Your task to perform on an android device: Show the shopping cart on amazon. Search for bose soundlink mini on amazon, select the first entry, add it to the cart, then select checkout. Image 0: 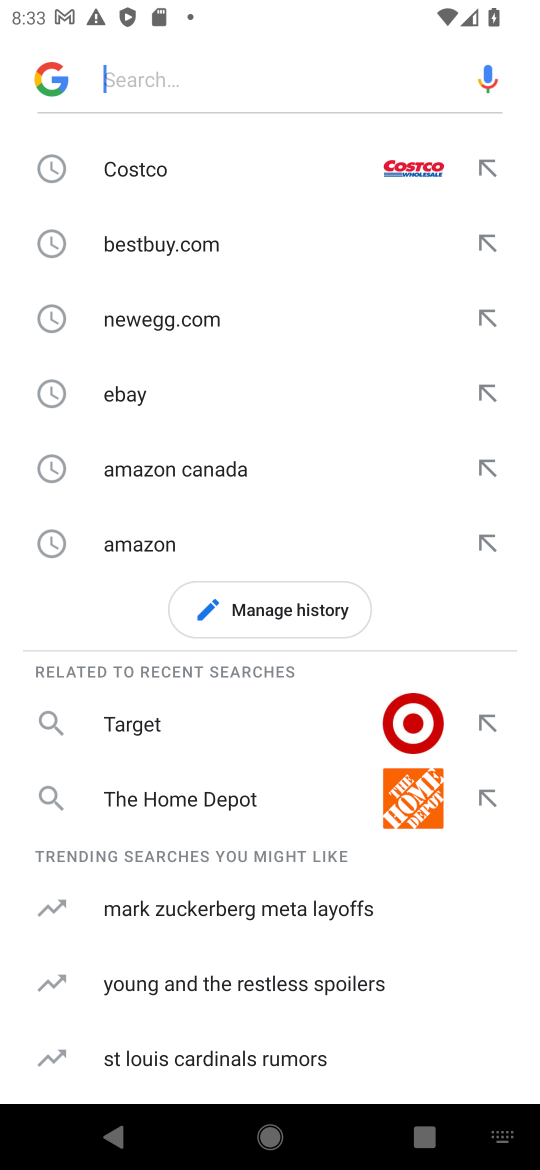
Step 0: type "amazon.com"
Your task to perform on an android device: Show the shopping cart on amazon. Search for bose soundlink mini on amazon, select the first entry, add it to the cart, then select checkout. Image 1: 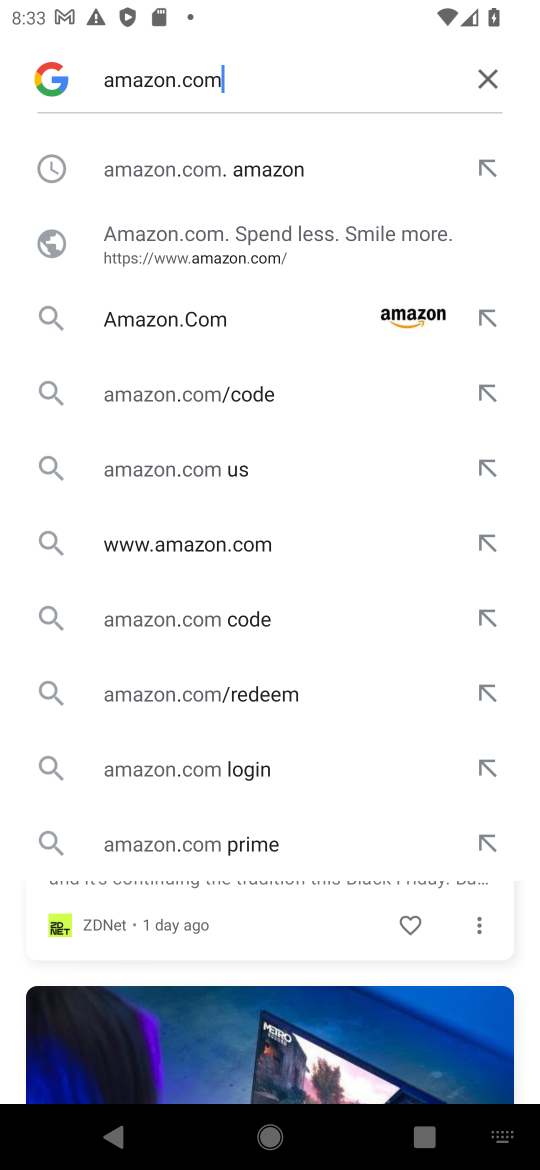
Step 1: click (170, 316)
Your task to perform on an android device: Show the shopping cart on amazon. Search for bose soundlink mini on amazon, select the first entry, add it to the cart, then select checkout. Image 2: 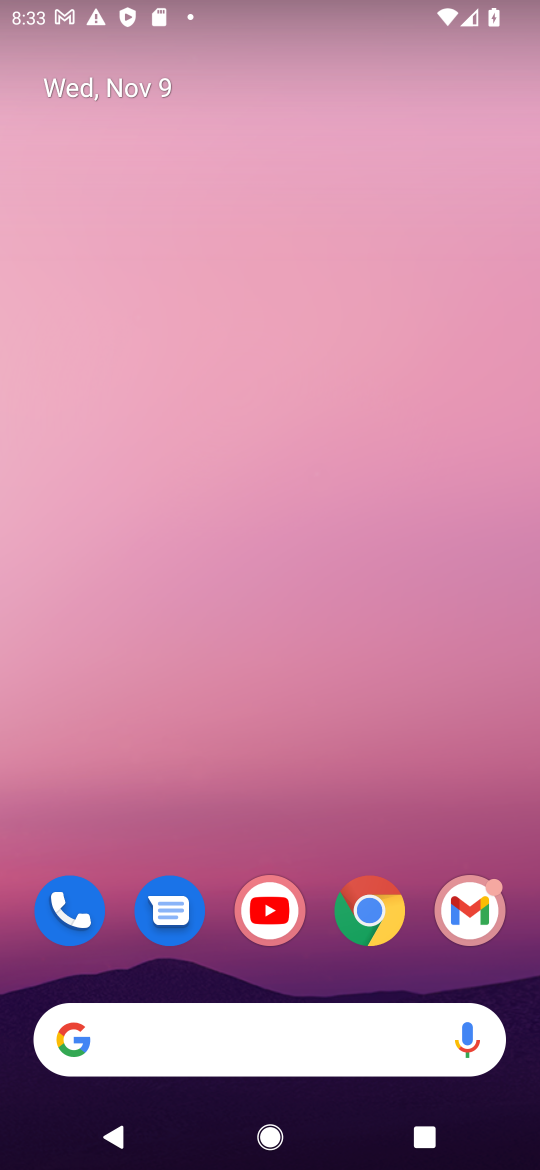
Step 2: click (367, 928)
Your task to perform on an android device: Show the shopping cart on amazon. Search for bose soundlink mini on amazon, select the first entry, add it to the cart, then select checkout. Image 3: 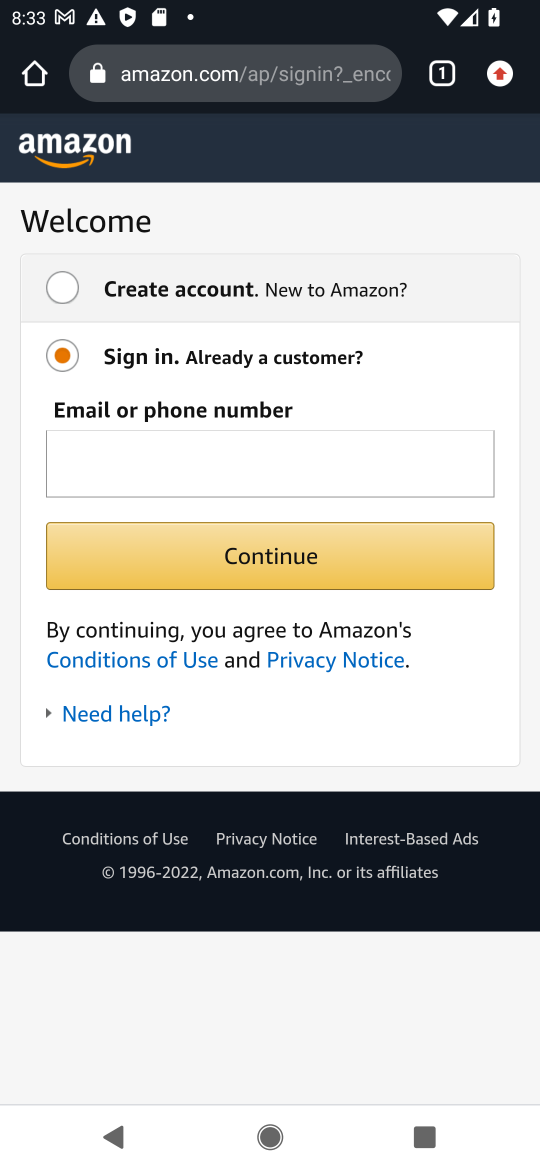
Step 3: press back button
Your task to perform on an android device: Show the shopping cart on amazon. Search for bose soundlink mini on amazon, select the first entry, add it to the cart, then select checkout. Image 4: 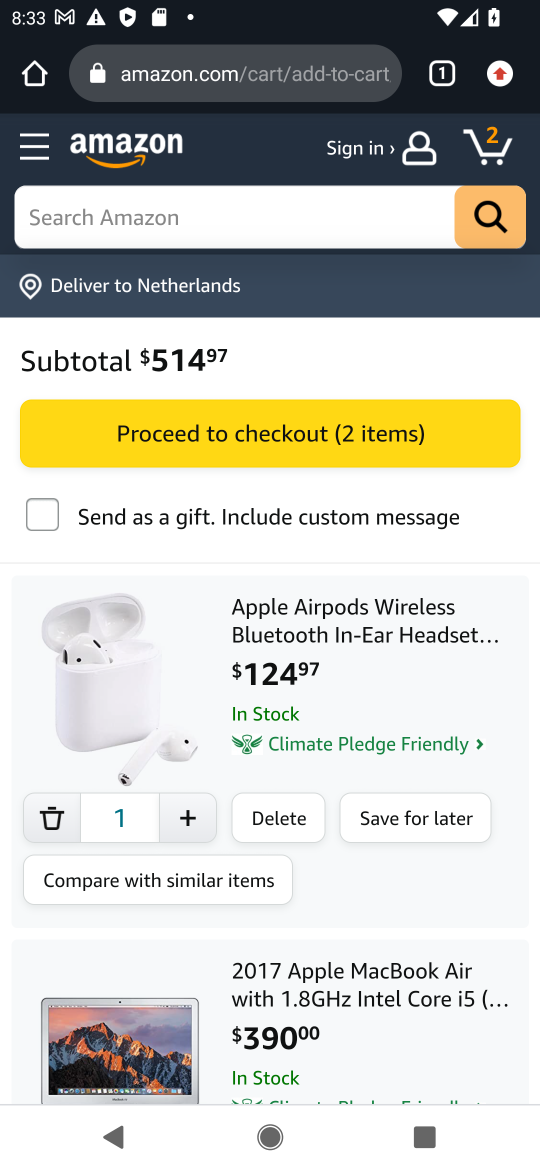
Step 4: click (491, 152)
Your task to perform on an android device: Show the shopping cart on amazon. Search for bose soundlink mini on amazon, select the first entry, add it to the cart, then select checkout. Image 5: 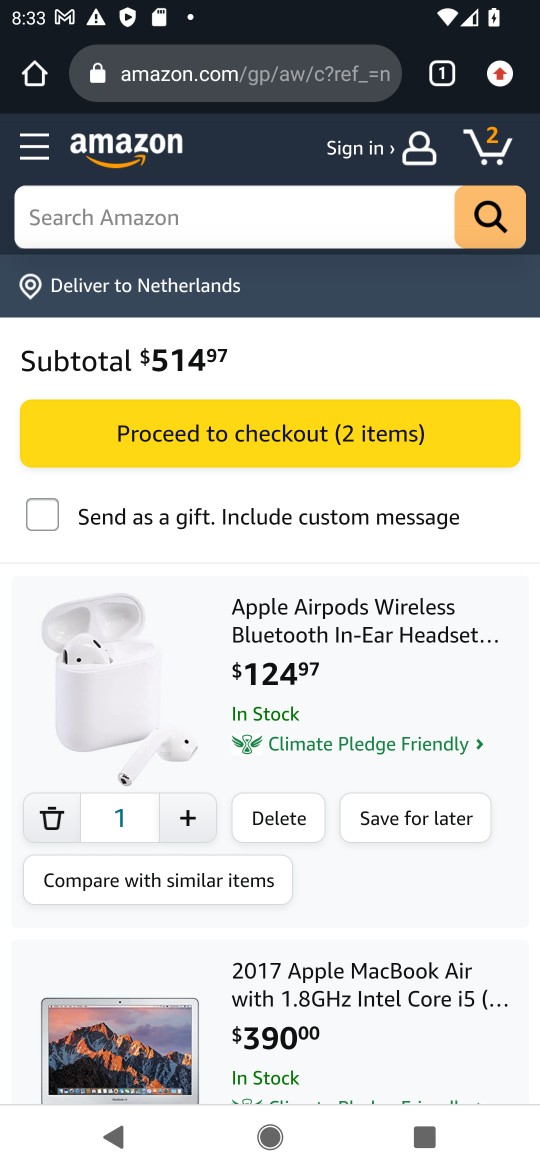
Step 5: drag from (428, 749) to (440, 530)
Your task to perform on an android device: Show the shopping cart on amazon. Search for bose soundlink mini on amazon, select the first entry, add it to the cart, then select checkout. Image 6: 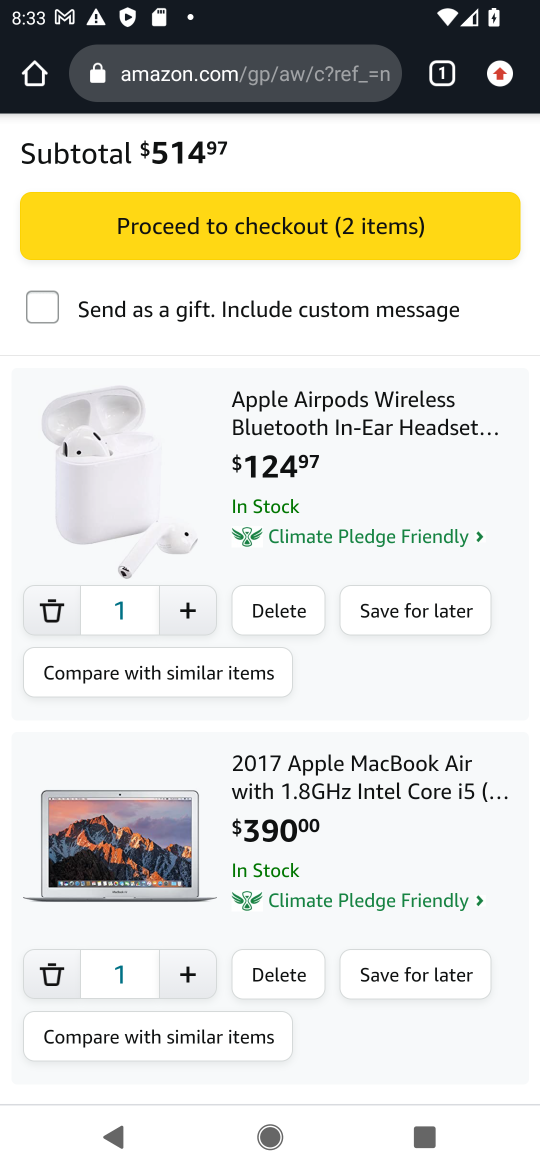
Step 6: drag from (458, 413) to (489, 867)
Your task to perform on an android device: Show the shopping cart on amazon. Search for bose soundlink mini on amazon, select the first entry, add it to the cart, then select checkout. Image 7: 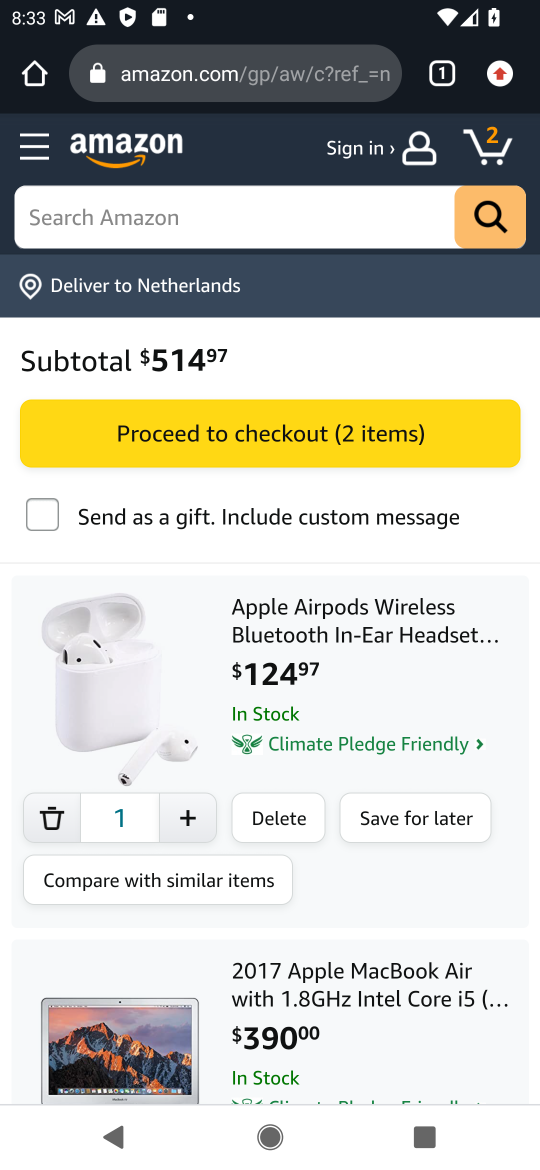
Step 7: click (164, 234)
Your task to perform on an android device: Show the shopping cart on amazon. Search for bose soundlink mini on amazon, select the first entry, add it to the cart, then select checkout. Image 8: 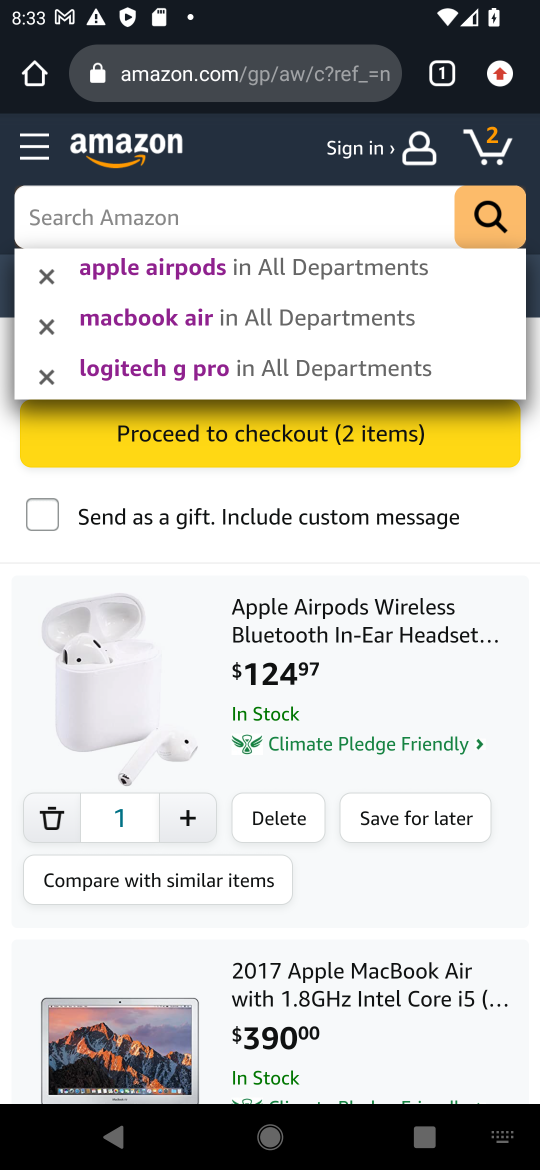
Step 8: type "bose soundlink mini "
Your task to perform on an android device: Show the shopping cart on amazon. Search for bose soundlink mini on amazon, select the first entry, add it to the cart, then select checkout. Image 9: 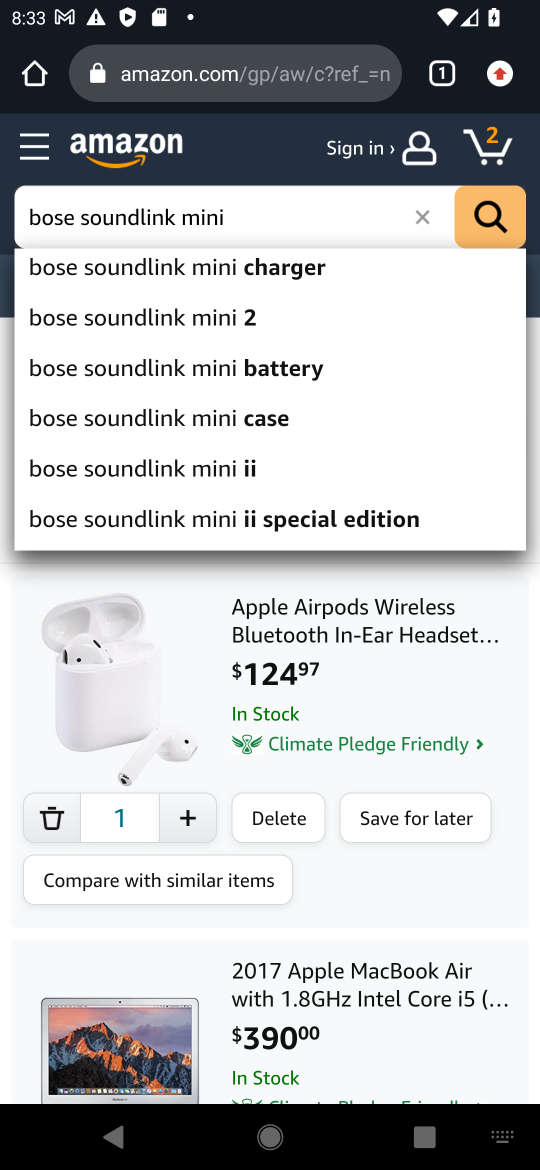
Step 9: click (472, 219)
Your task to perform on an android device: Show the shopping cart on amazon. Search for bose soundlink mini on amazon, select the first entry, add it to the cart, then select checkout. Image 10: 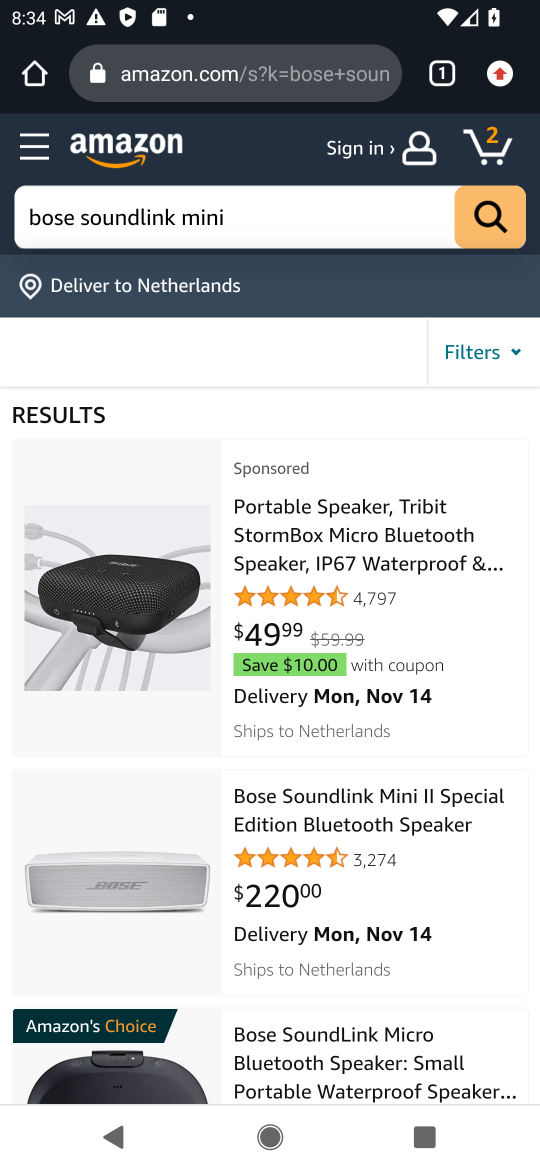
Step 10: task complete